Your task to perform on an android device: Open Android settings Image 0: 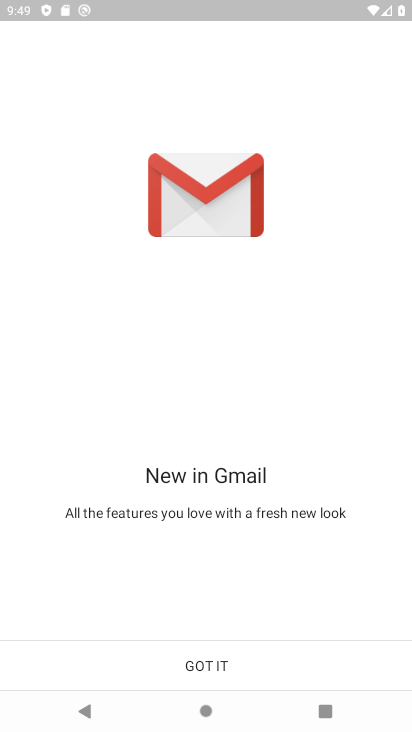
Step 0: press home button
Your task to perform on an android device: Open Android settings Image 1: 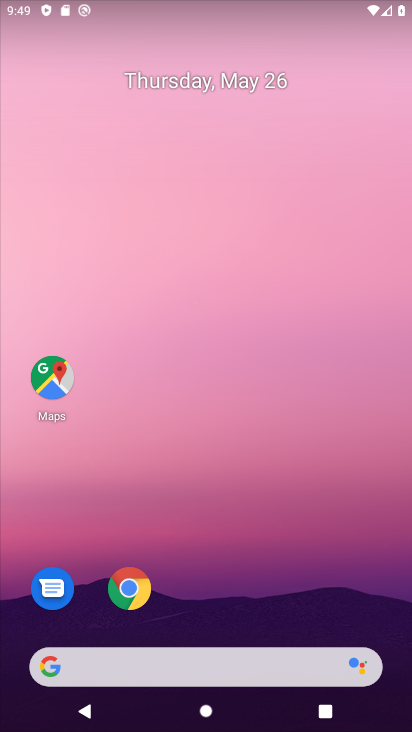
Step 1: drag from (231, 721) to (190, 46)
Your task to perform on an android device: Open Android settings Image 2: 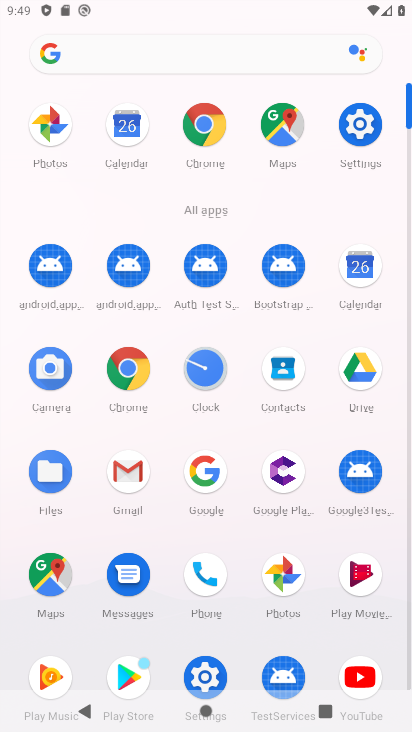
Step 2: click (355, 124)
Your task to perform on an android device: Open Android settings Image 3: 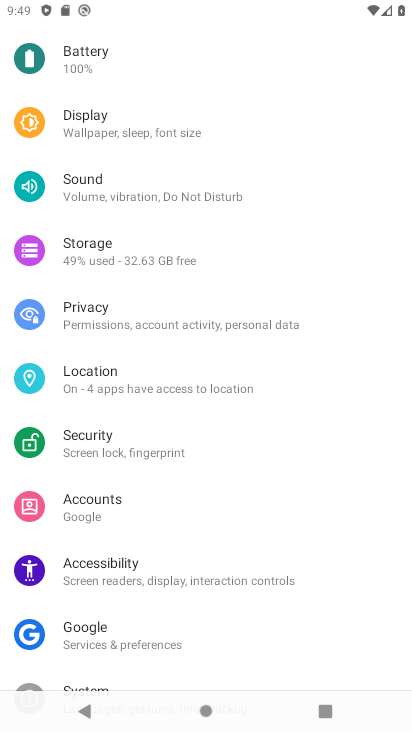
Step 3: task complete